Your task to perform on an android device: check out phone information Image 0: 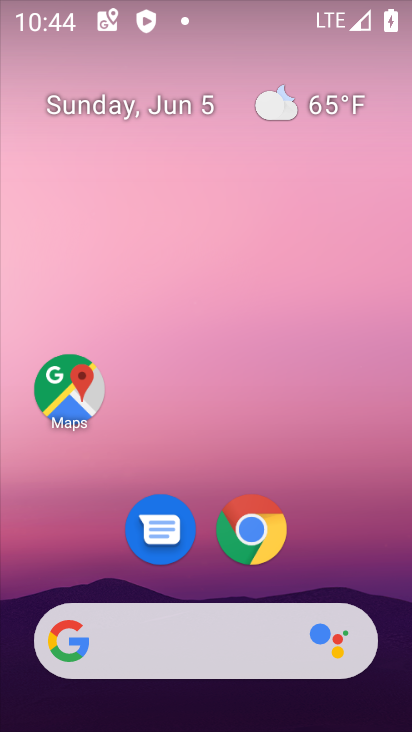
Step 0: drag from (213, 449) to (251, 5)
Your task to perform on an android device: check out phone information Image 1: 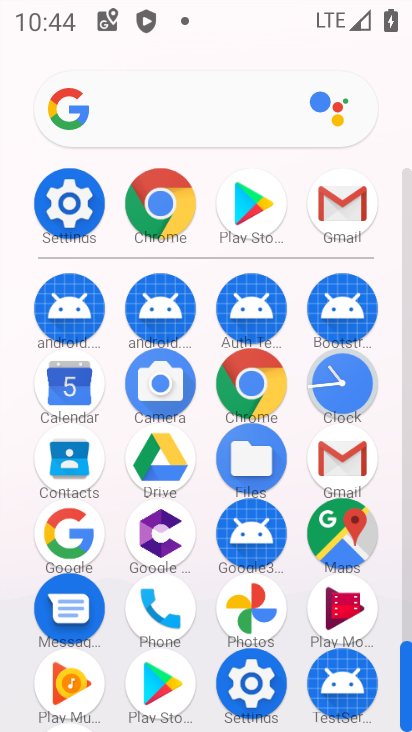
Step 1: click (79, 205)
Your task to perform on an android device: check out phone information Image 2: 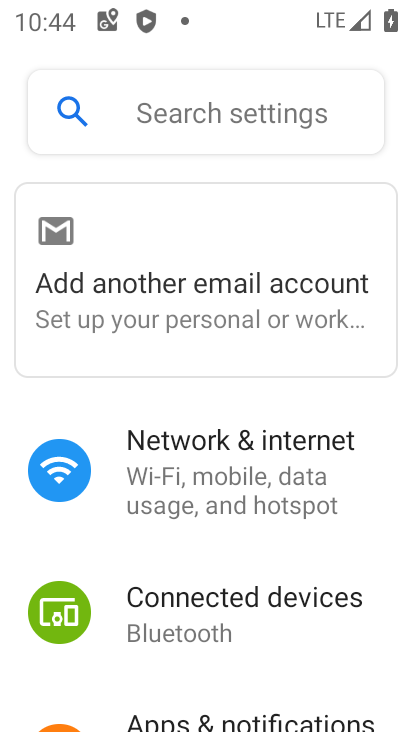
Step 2: drag from (241, 622) to (240, 69)
Your task to perform on an android device: check out phone information Image 3: 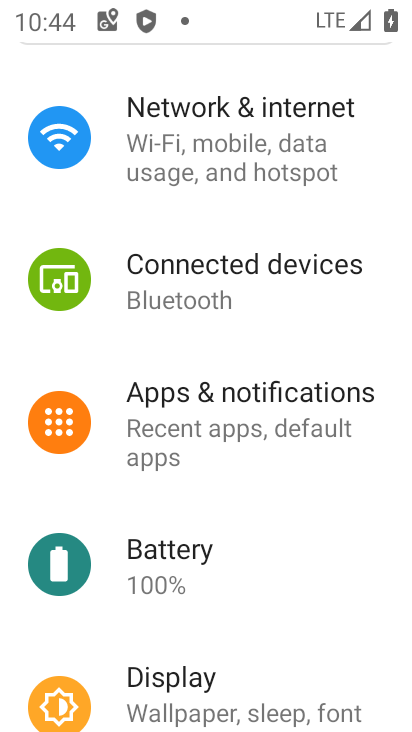
Step 3: drag from (302, 599) to (367, 103)
Your task to perform on an android device: check out phone information Image 4: 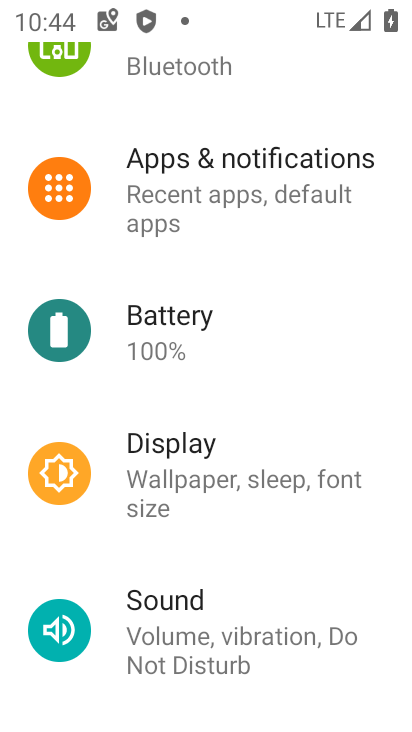
Step 4: drag from (296, 677) to (296, 81)
Your task to perform on an android device: check out phone information Image 5: 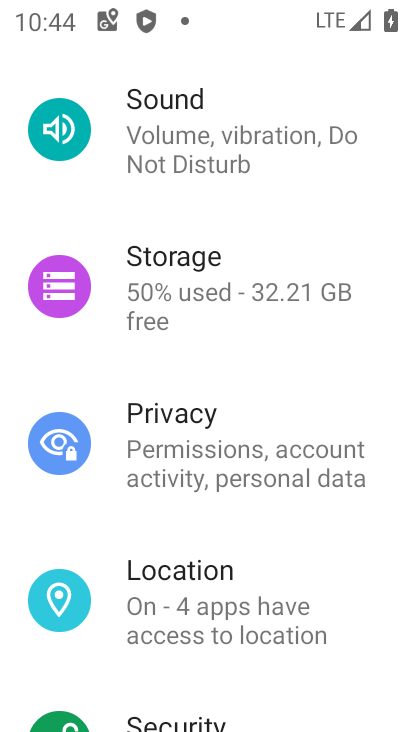
Step 5: drag from (256, 692) to (348, 99)
Your task to perform on an android device: check out phone information Image 6: 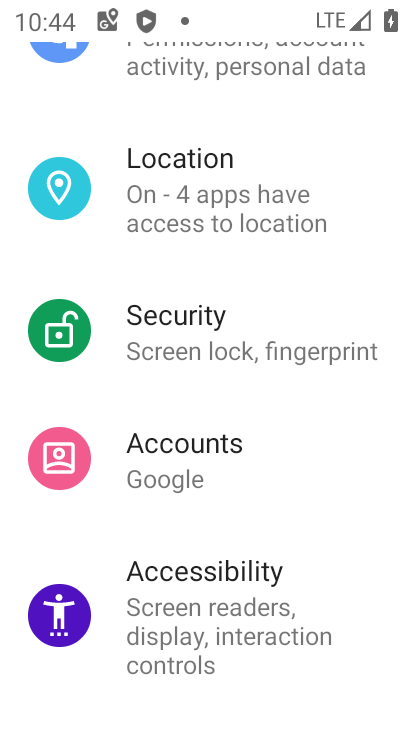
Step 6: drag from (289, 520) to (307, 81)
Your task to perform on an android device: check out phone information Image 7: 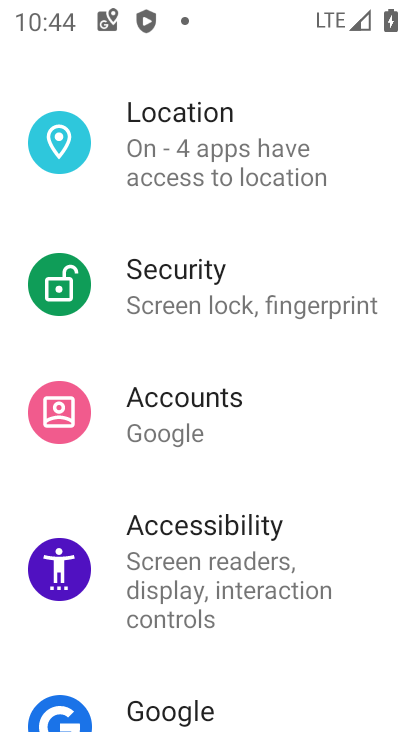
Step 7: drag from (274, 532) to (341, 30)
Your task to perform on an android device: check out phone information Image 8: 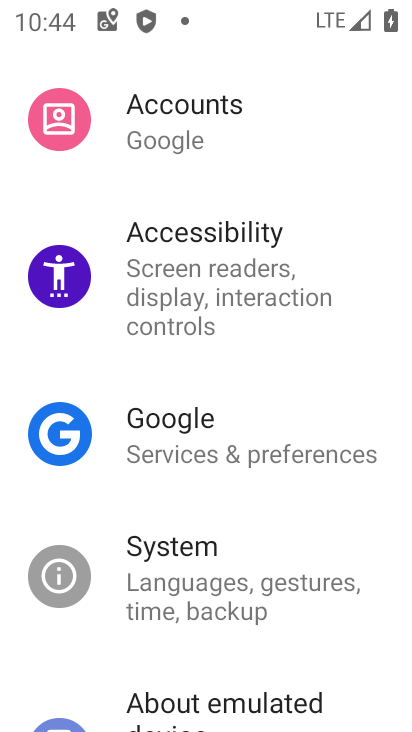
Step 8: drag from (315, 655) to (341, 51)
Your task to perform on an android device: check out phone information Image 9: 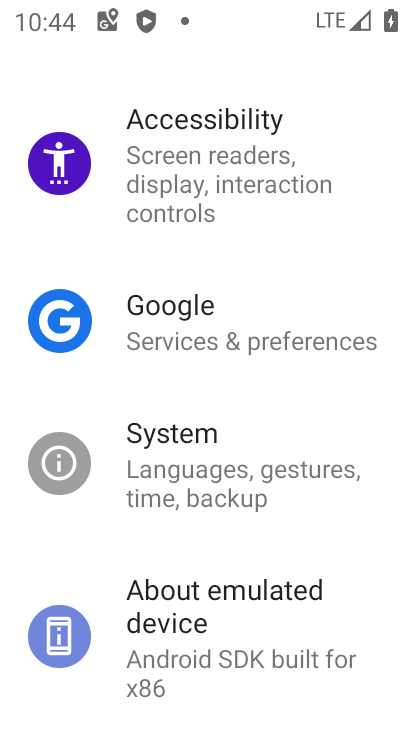
Step 9: drag from (306, 566) to (322, 57)
Your task to perform on an android device: check out phone information Image 10: 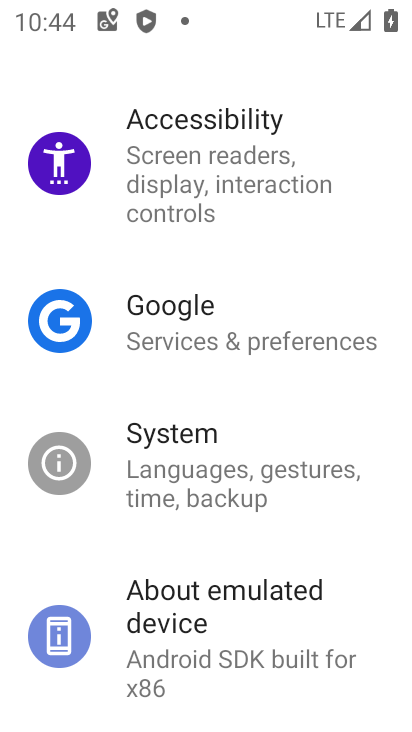
Step 10: click (261, 665)
Your task to perform on an android device: check out phone information Image 11: 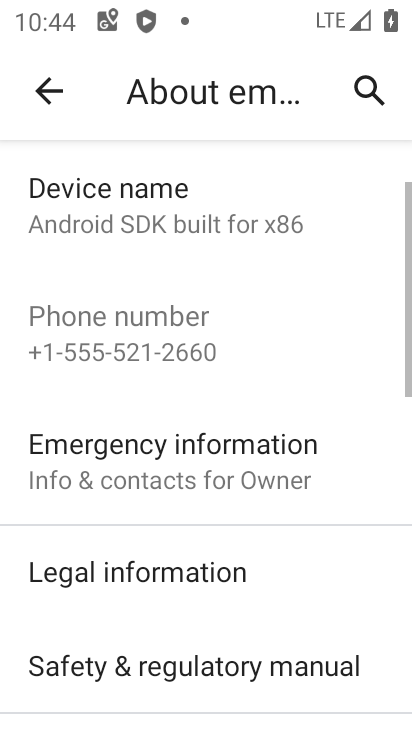
Step 11: task complete